Your task to perform on an android device: open wifi settings Image 0: 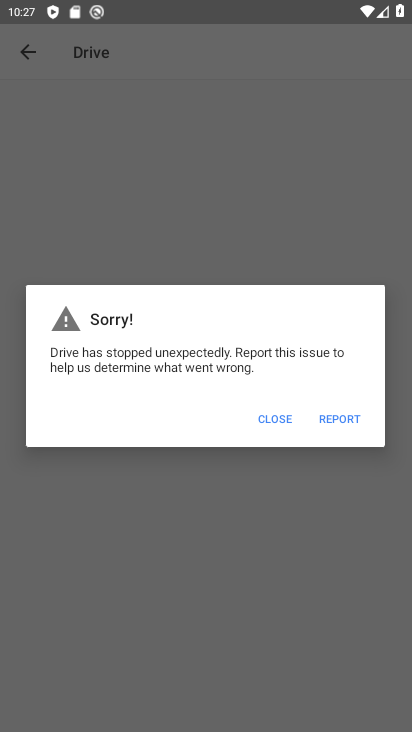
Step 0: press home button
Your task to perform on an android device: open wifi settings Image 1: 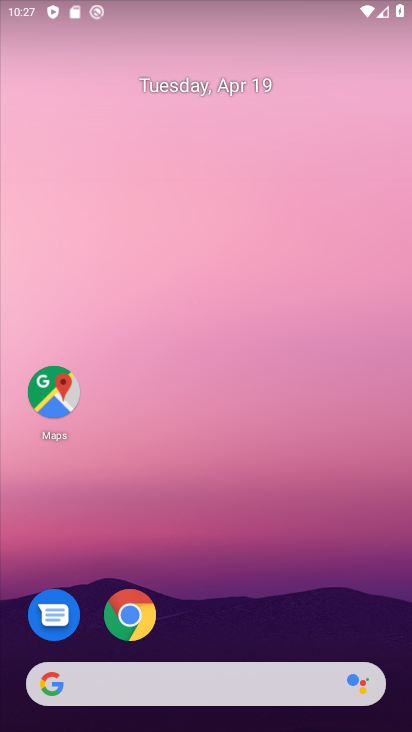
Step 1: drag from (246, 328) to (220, 109)
Your task to perform on an android device: open wifi settings Image 2: 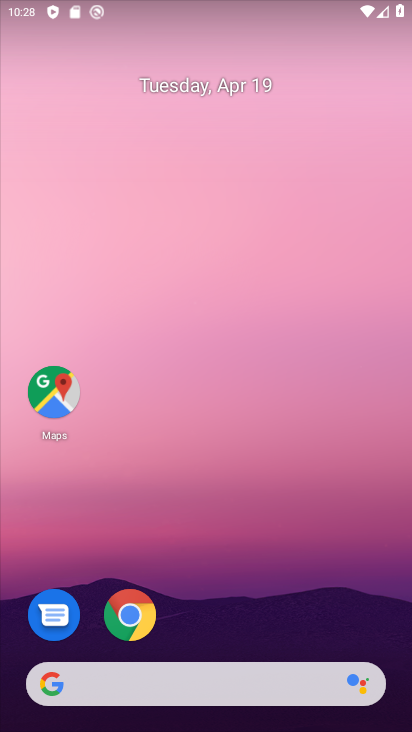
Step 2: drag from (233, 613) to (198, 56)
Your task to perform on an android device: open wifi settings Image 3: 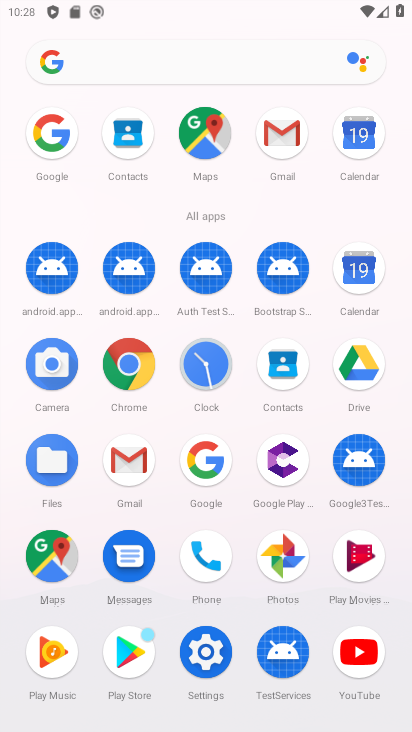
Step 3: click (204, 650)
Your task to perform on an android device: open wifi settings Image 4: 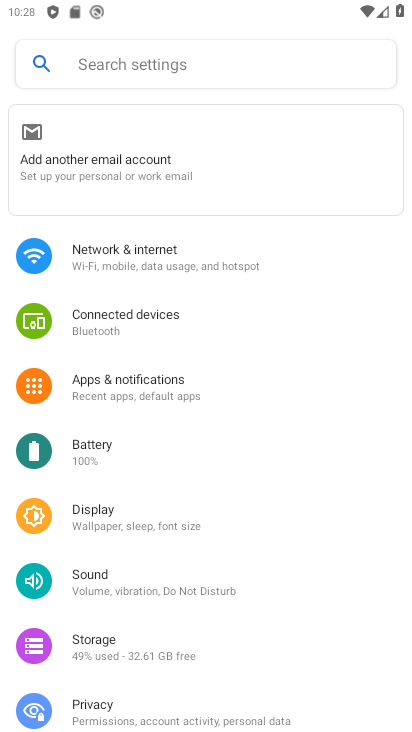
Step 4: click (151, 258)
Your task to perform on an android device: open wifi settings Image 5: 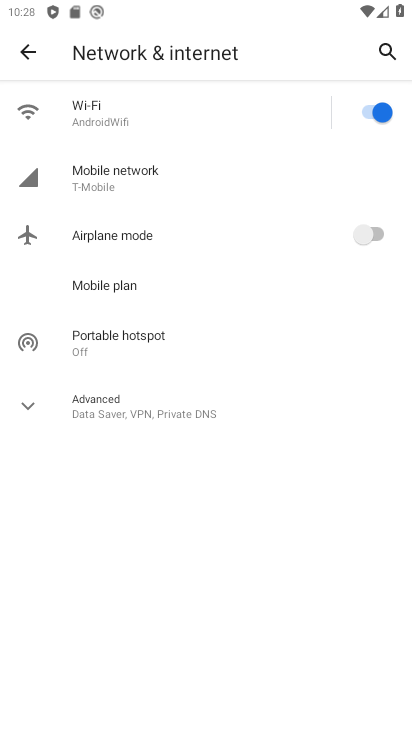
Step 5: click (171, 115)
Your task to perform on an android device: open wifi settings Image 6: 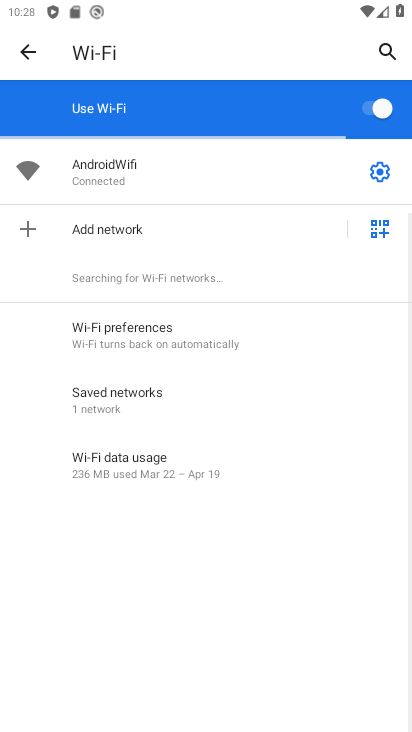
Step 6: click (377, 170)
Your task to perform on an android device: open wifi settings Image 7: 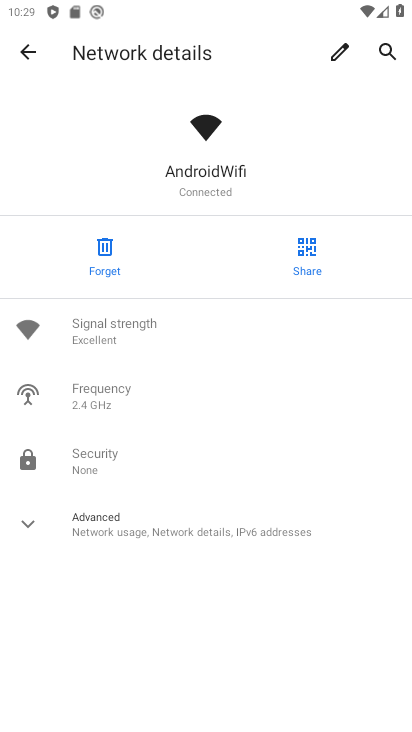
Step 7: task complete